Your task to perform on an android device: open a new tab in the chrome app Image 0: 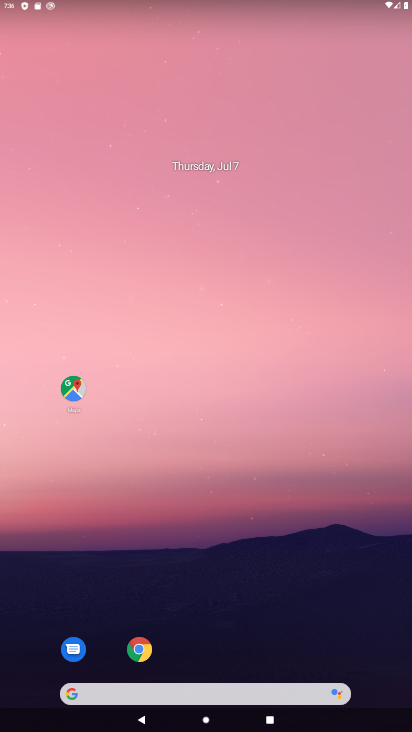
Step 0: click (139, 650)
Your task to perform on an android device: open a new tab in the chrome app Image 1: 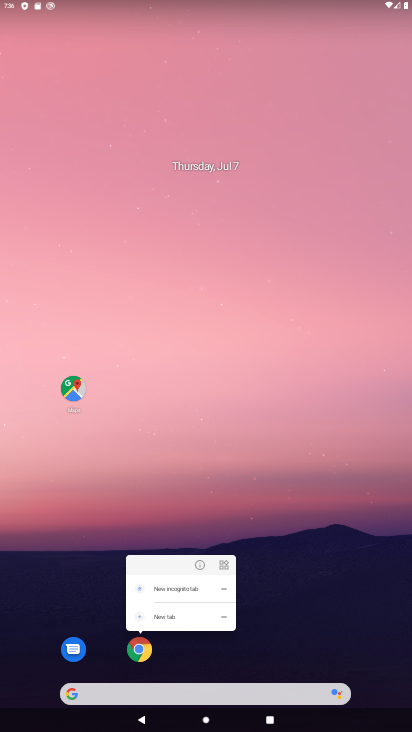
Step 1: click (139, 650)
Your task to perform on an android device: open a new tab in the chrome app Image 2: 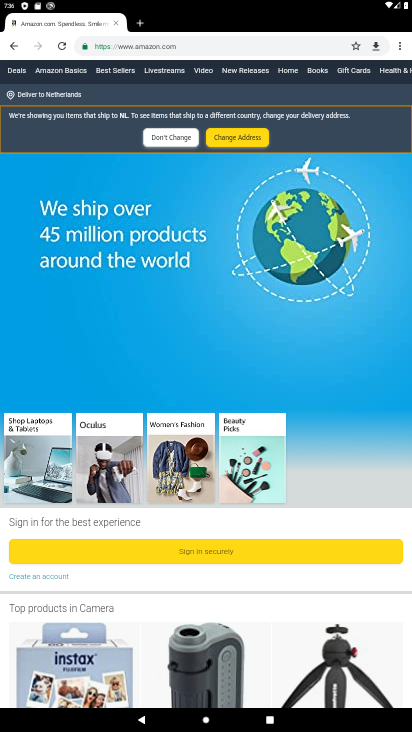
Step 2: click (142, 21)
Your task to perform on an android device: open a new tab in the chrome app Image 3: 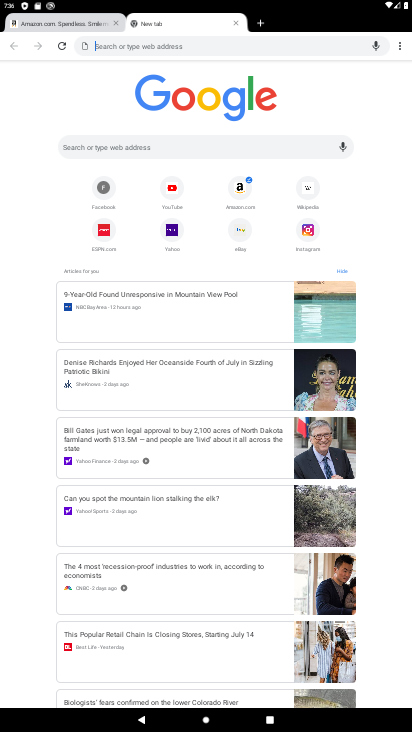
Step 3: task complete